Your task to perform on an android device: visit the assistant section in the google photos Image 0: 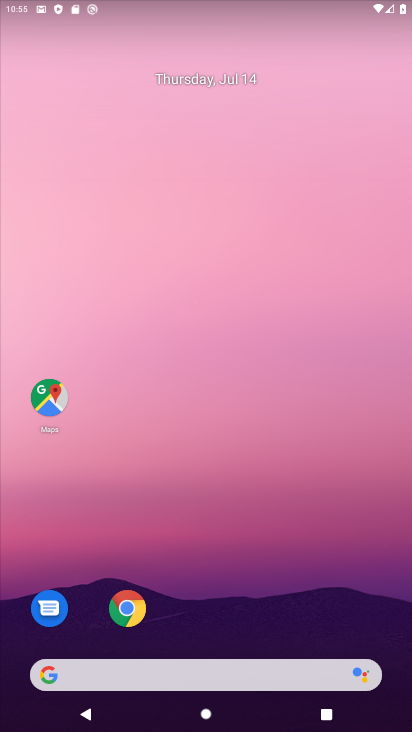
Step 0: click (212, 158)
Your task to perform on an android device: visit the assistant section in the google photos Image 1: 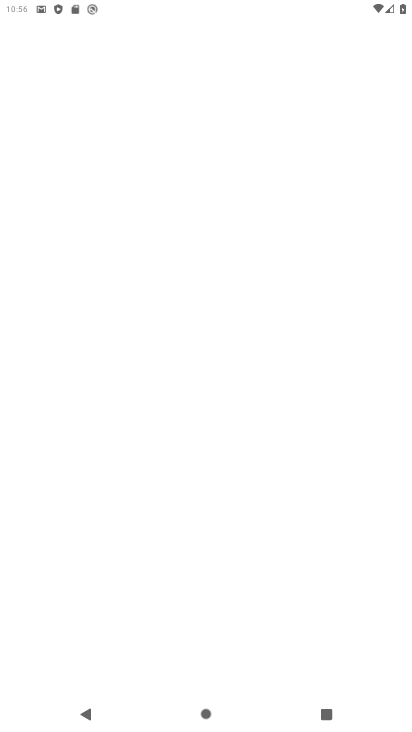
Step 1: press home button
Your task to perform on an android device: visit the assistant section in the google photos Image 2: 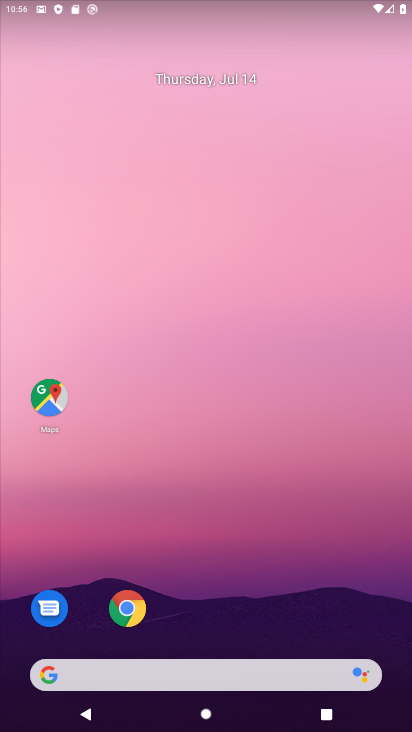
Step 2: drag from (313, 618) to (217, 205)
Your task to perform on an android device: visit the assistant section in the google photos Image 3: 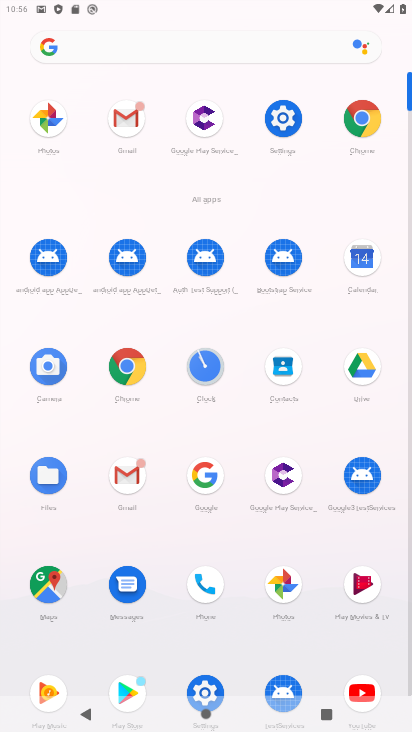
Step 3: click (298, 573)
Your task to perform on an android device: visit the assistant section in the google photos Image 4: 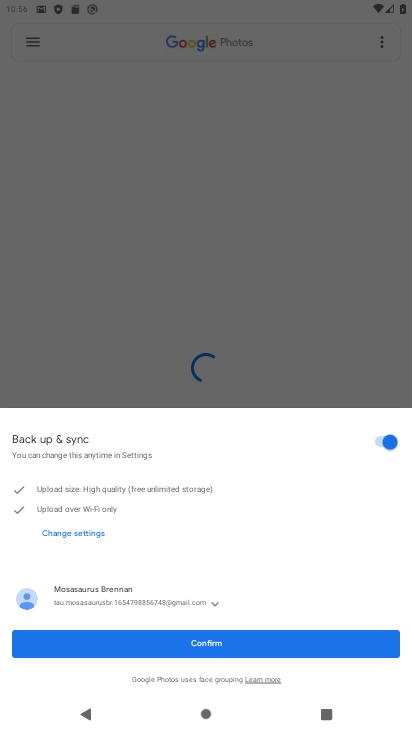
Step 4: click (230, 638)
Your task to perform on an android device: visit the assistant section in the google photos Image 5: 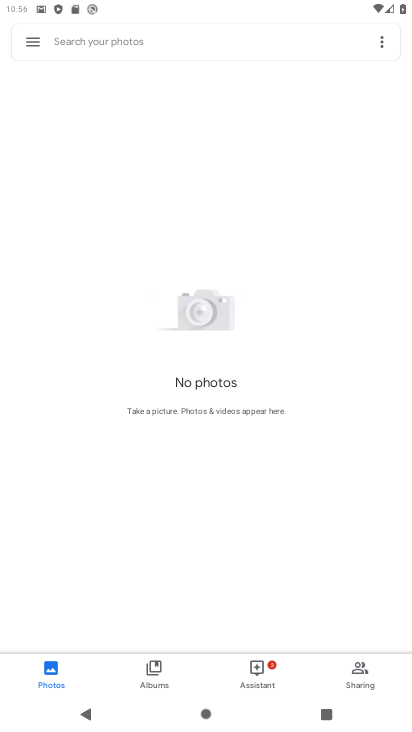
Step 5: click (252, 673)
Your task to perform on an android device: visit the assistant section in the google photos Image 6: 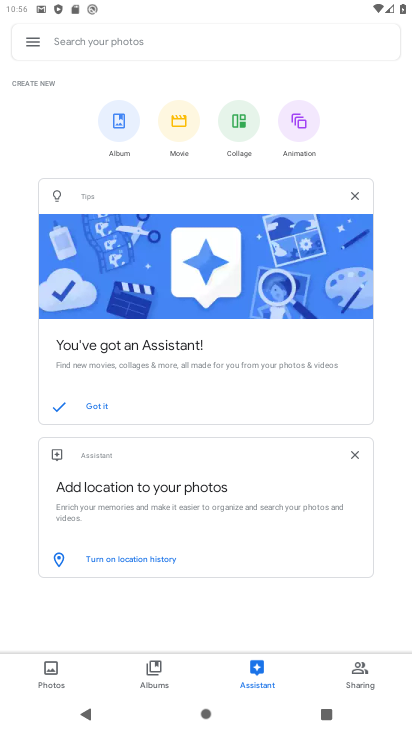
Step 6: task complete